Your task to perform on an android device: turn off translation in the chrome app Image 0: 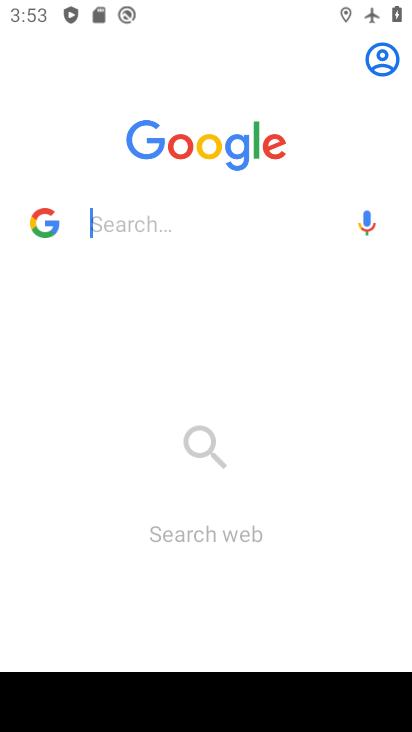
Step 0: press home button
Your task to perform on an android device: turn off translation in the chrome app Image 1: 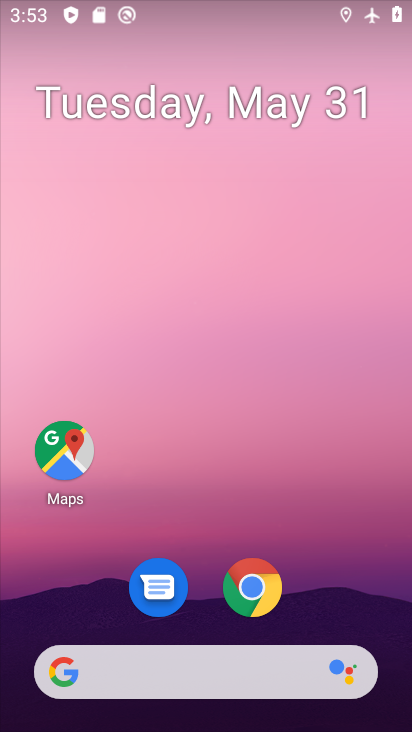
Step 1: click (273, 601)
Your task to perform on an android device: turn off translation in the chrome app Image 2: 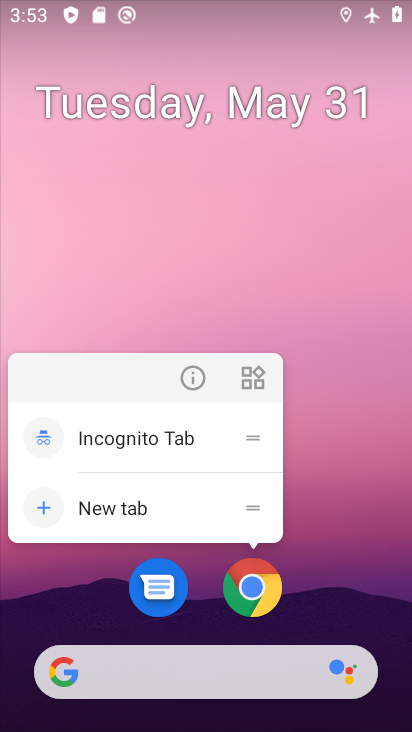
Step 2: click (263, 594)
Your task to perform on an android device: turn off translation in the chrome app Image 3: 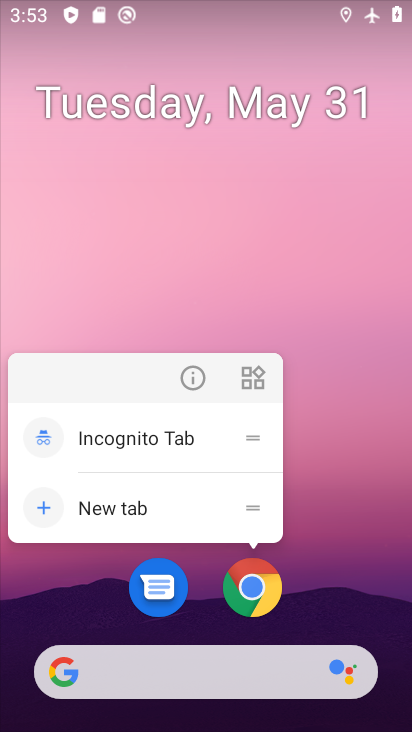
Step 3: click (262, 590)
Your task to perform on an android device: turn off translation in the chrome app Image 4: 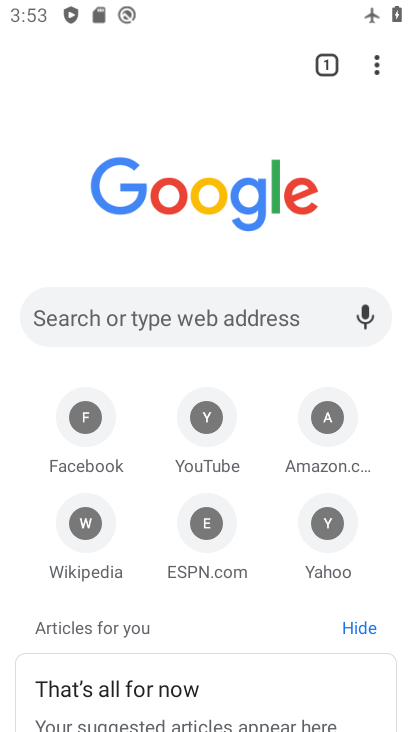
Step 4: drag from (384, 71) to (266, 534)
Your task to perform on an android device: turn off translation in the chrome app Image 5: 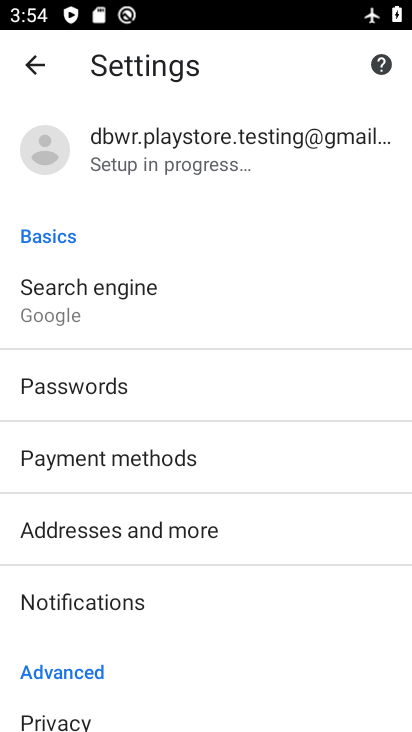
Step 5: drag from (184, 621) to (292, 196)
Your task to perform on an android device: turn off translation in the chrome app Image 6: 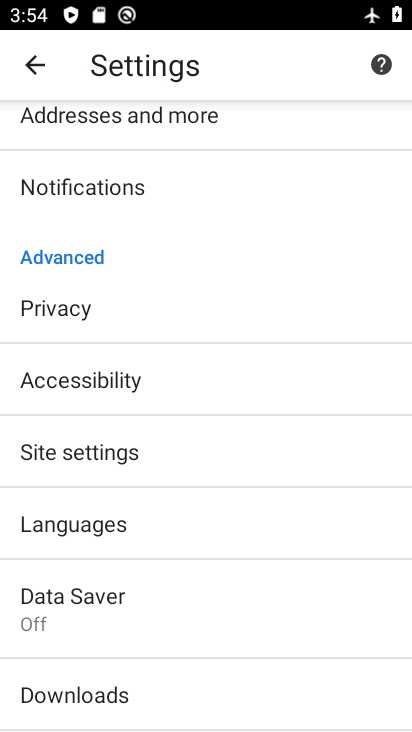
Step 6: click (160, 522)
Your task to perform on an android device: turn off translation in the chrome app Image 7: 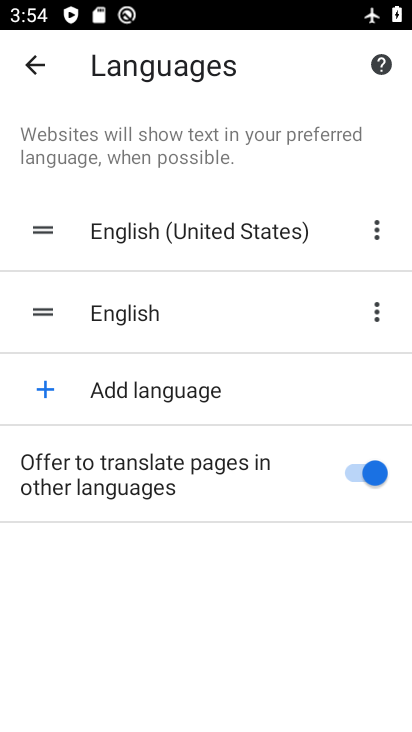
Step 7: click (360, 472)
Your task to perform on an android device: turn off translation in the chrome app Image 8: 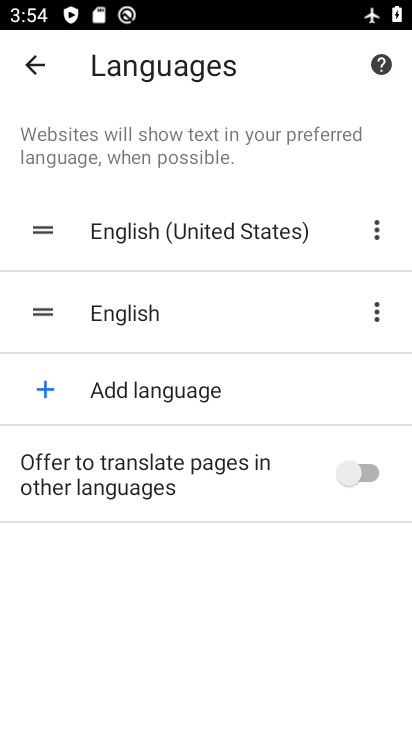
Step 8: task complete